Your task to perform on an android device: Open my contact list Image 0: 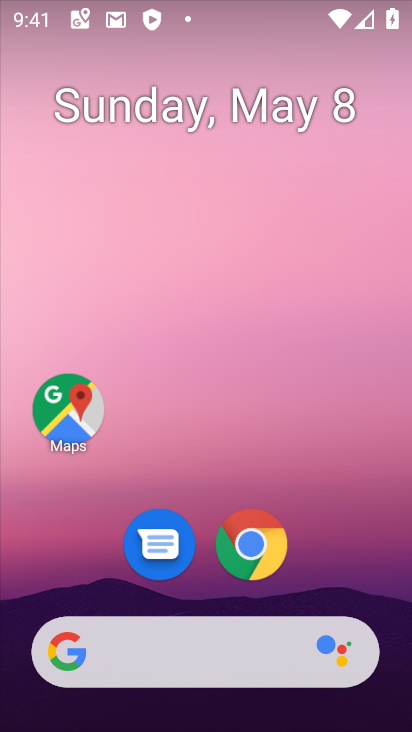
Step 0: drag from (328, 568) to (332, 75)
Your task to perform on an android device: Open my contact list Image 1: 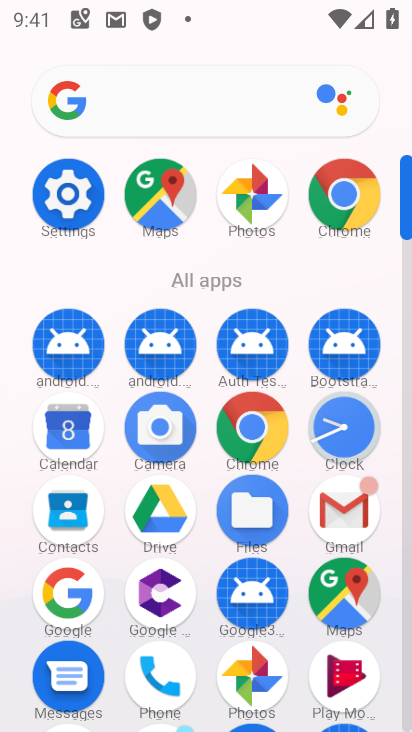
Step 1: click (141, 676)
Your task to perform on an android device: Open my contact list Image 2: 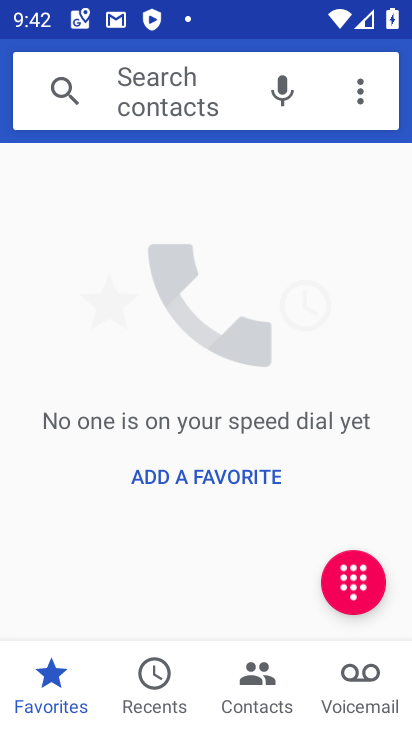
Step 2: click (246, 693)
Your task to perform on an android device: Open my contact list Image 3: 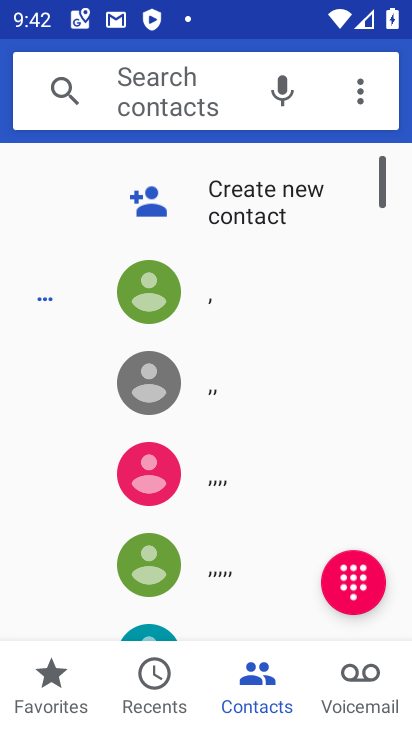
Step 3: task complete